Your task to perform on an android device: toggle notification dots Image 0: 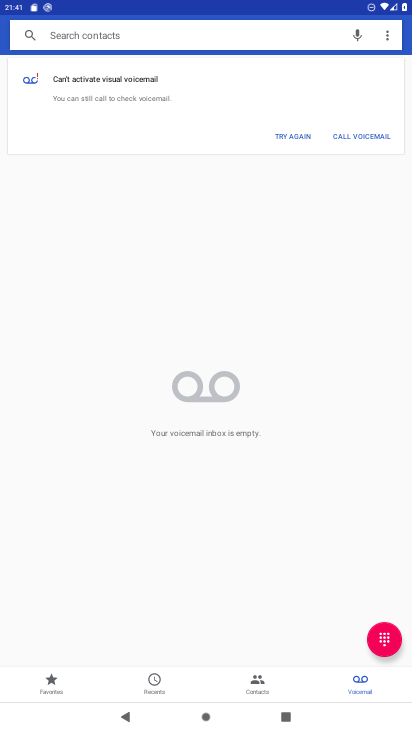
Step 0: press home button
Your task to perform on an android device: toggle notification dots Image 1: 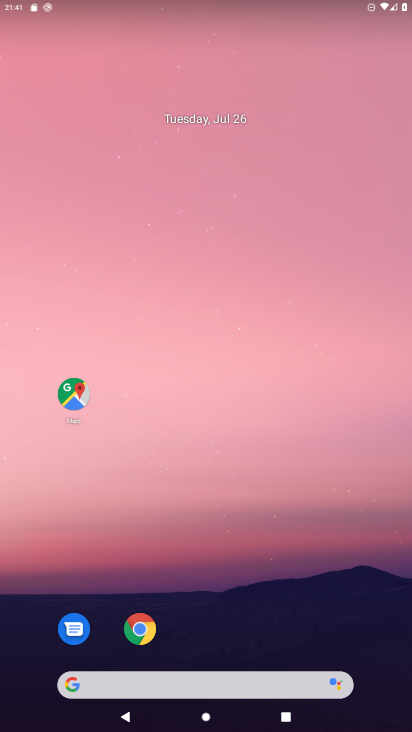
Step 1: drag from (238, 627) to (200, 24)
Your task to perform on an android device: toggle notification dots Image 2: 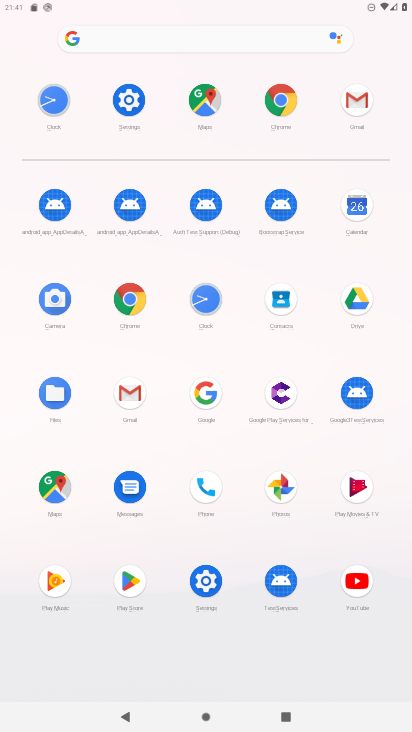
Step 2: click (204, 580)
Your task to perform on an android device: toggle notification dots Image 3: 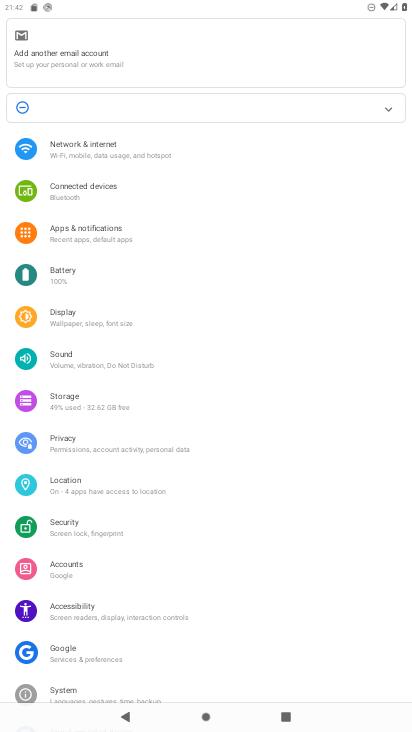
Step 3: drag from (242, 602) to (214, 167)
Your task to perform on an android device: toggle notification dots Image 4: 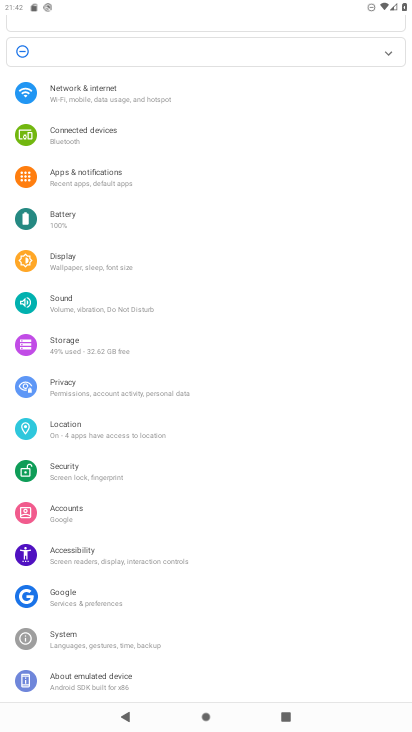
Step 4: click (93, 173)
Your task to perform on an android device: toggle notification dots Image 5: 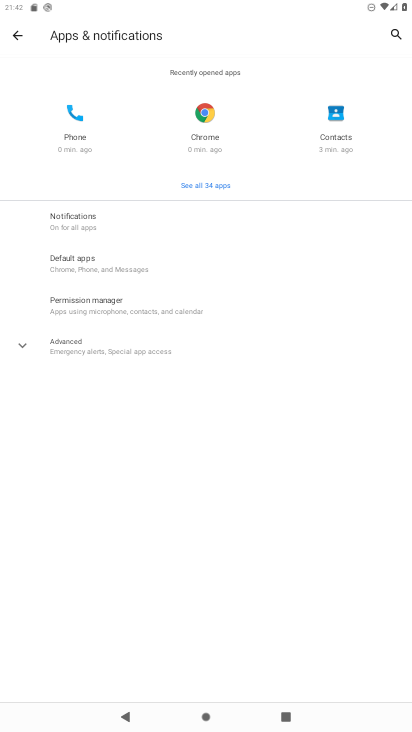
Step 5: click (80, 216)
Your task to perform on an android device: toggle notification dots Image 6: 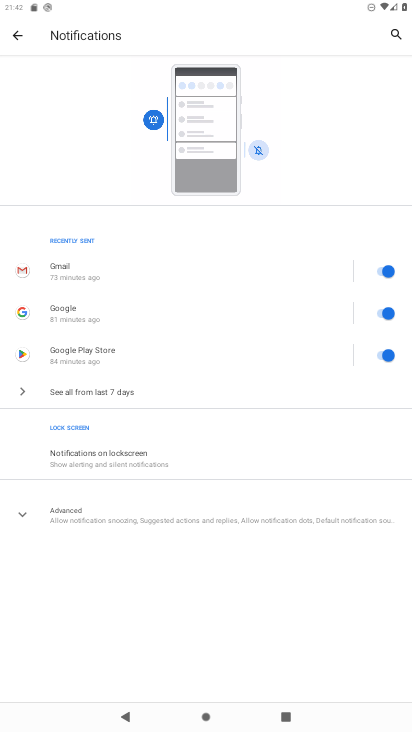
Step 6: click (116, 508)
Your task to perform on an android device: toggle notification dots Image 7: 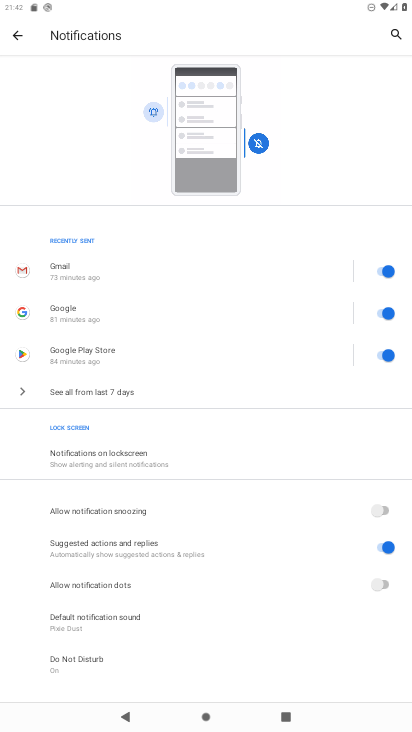
Step 7: click (367, 587)
Your task to perform on an android device: toggle notification dots Image 8: 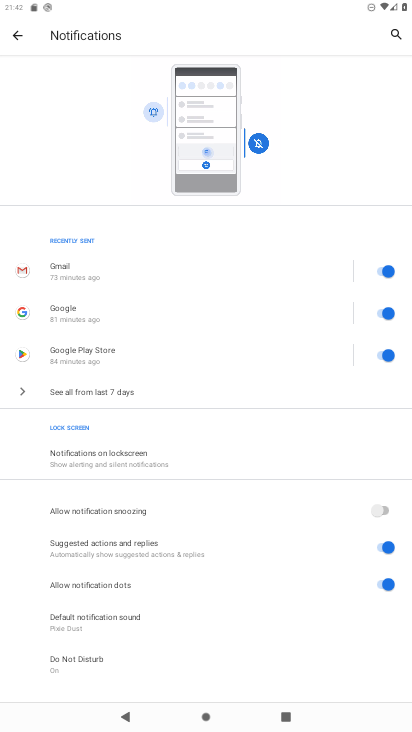
Step 8: task complete